Your task to perform on an android device: turn on showing notifications on the lock screen Image 0: 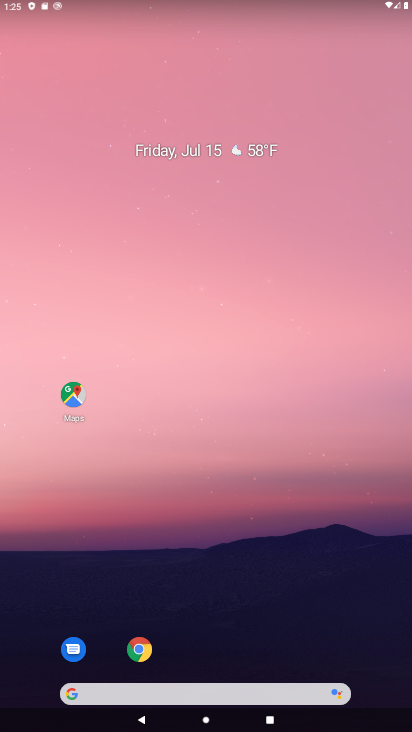
Step 0: drag from (295, 679) to (283, 95)
Your task to perform on an android device: turn on showing notifications on the lock screen Image 1: 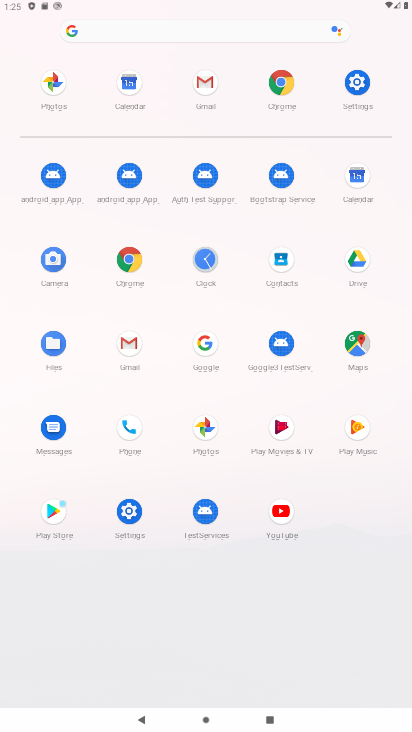
Step 1: click (361, 80)
Your task to perform on an android device: turn on showing notifications on the lock screen Image 2: 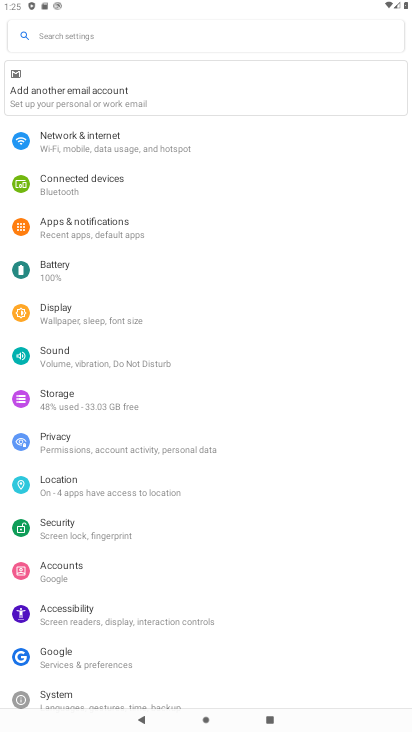
Step 2: click (120, 223)
Your task to perform on an android device: turn on showing notifications on the lock screen Image 3: 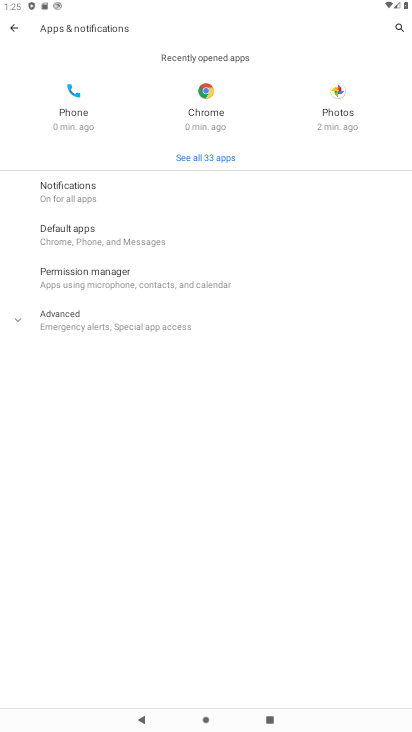
Step 3: click (83, 185)
Your task to perform on an android device: turn on showing notifications on the lock screen Image 4: 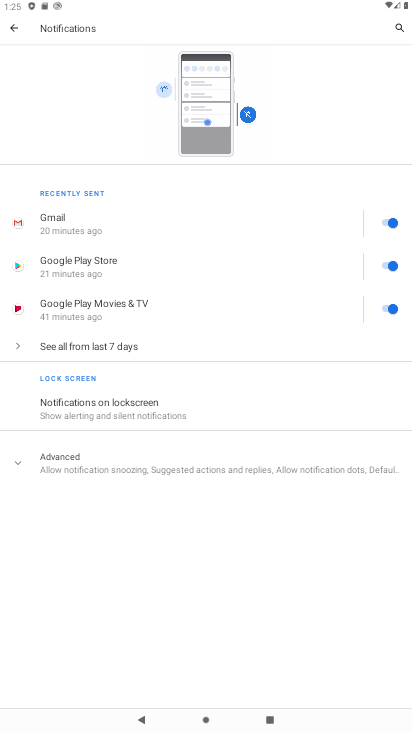
Step 4: click (136, 408)
Your task to perform on an android device: turn on showing notifications on the lock screen Image 5: 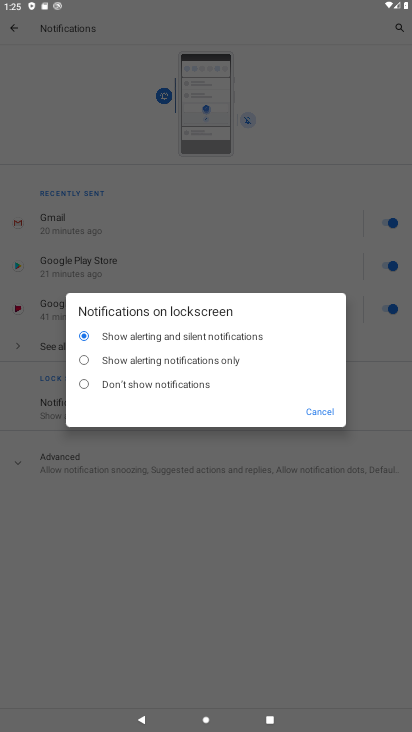
Step 5: task complete